Your task to perform on an android device: open app "HBO Max: Stream TV & Movies" (install if not already installed), go to login, and select forgot password Image 0: 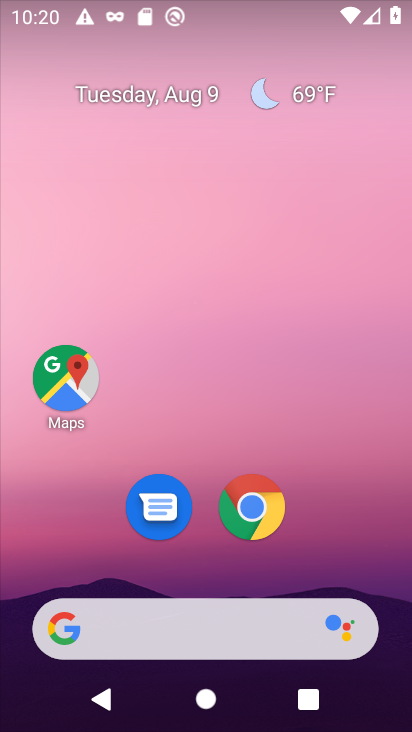
Step 0: drag from (167, 629) to (162, 262)
Your task to perform on an android device: open app "HBO Max: Stream TV & Movies" (install if not already installed), go to login, and select forgot password Image 1: 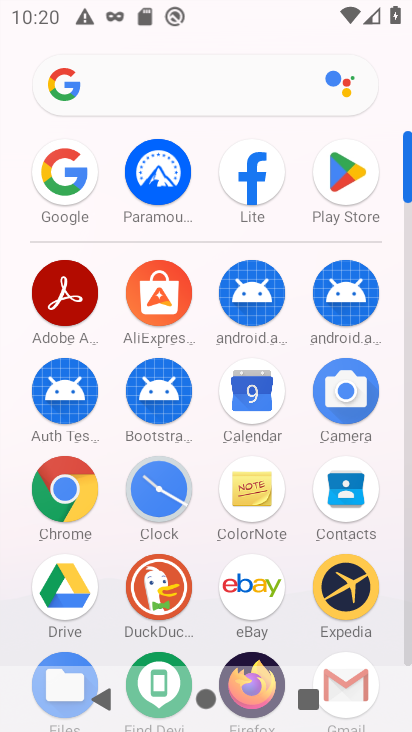
Step 1: click (346, 174)
Your task to perform on an android device: open app "HBO Max: Stream TV & Movies" (install if not already installed), go to login, and select forgot password Image 2: 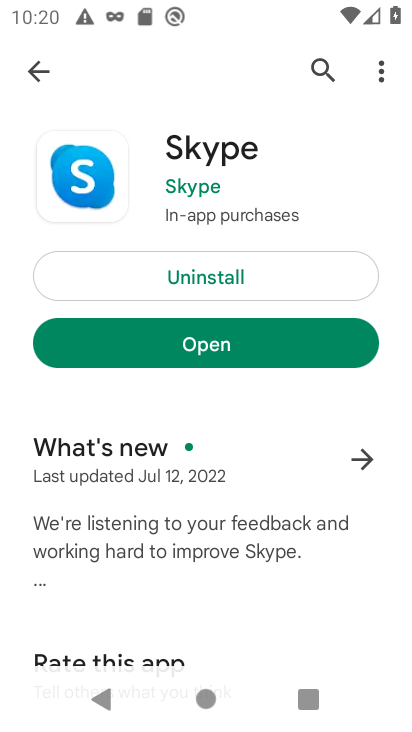
Step 2: click (322, 73)
Your task to perform on an android device: open app "HBO Max: Stream TV & Movies" (install if not already installed), go to login, and select forgot password Image 3: 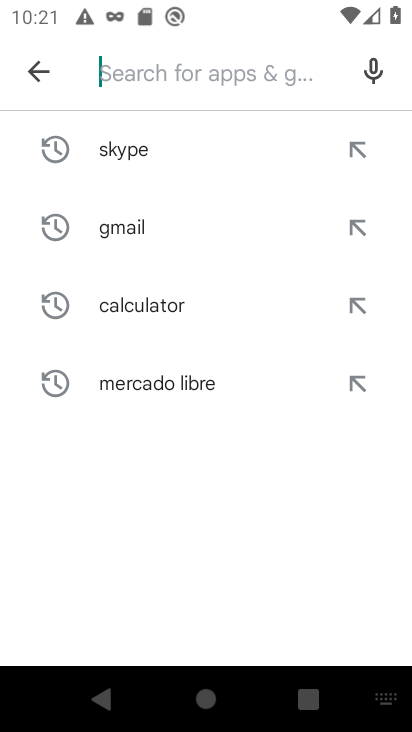
Step 3: type "HBO Max: Stream TV & Movies"
Your task to perform on an android device: open app "HBO Max: Stream TV & Movies" (install if not already installed), go to login, and select forgot password Image 4: 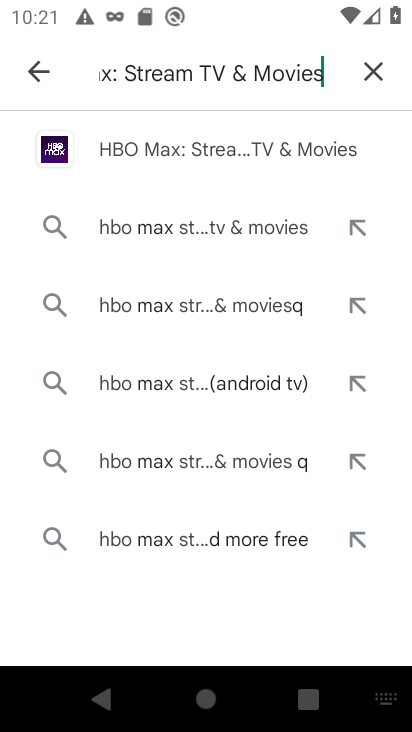
Step 4: click (170, 153)
Your task to perform on an android device: open app "HBO Max: Stream TV & Movies" (install if not already installed), go to login, and select forgot password Image 5: 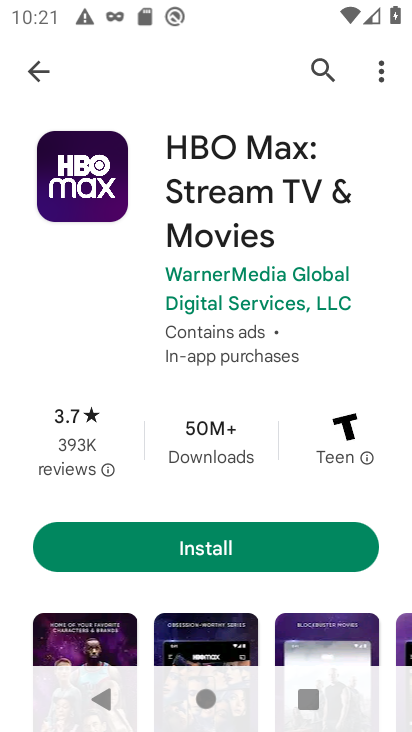
Step 5: click (224, 547)
Your task to perform on an android device: open app "HBO Max: Stream TV & Movies" (install if not already installed), go to login, and select forgot password Image 6: 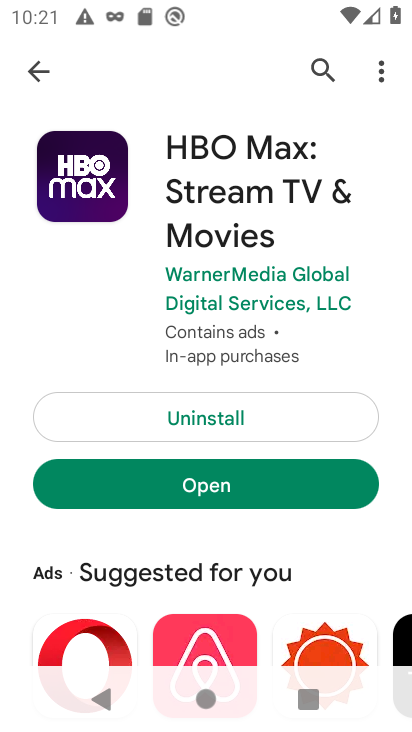
Step 6: click (219, 496)
Your task to perform on an android device: open app "HBO Max: Stream TV & Movies" (install if not already installed), go to login, and select forgot password Image 7: 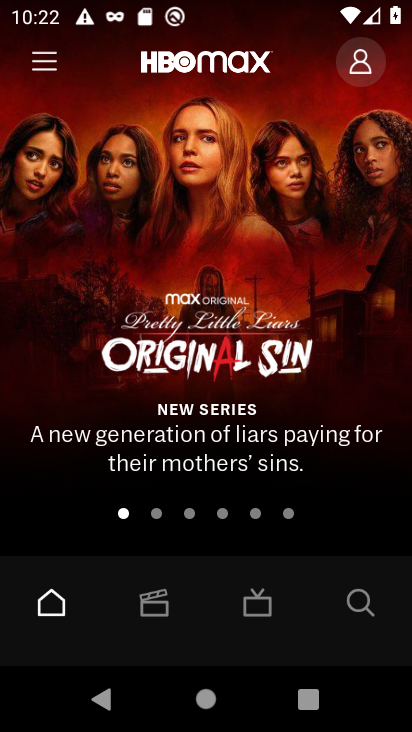
Step 7: click (355, 71)
Your task to perform on an android device: open app "HBO Max: Stream TV & Movies" (install if not already installed), go to login, and select forgot password Image 8: 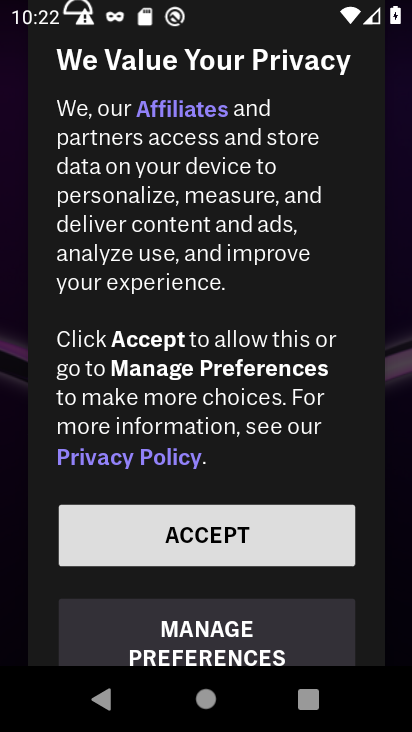
Step 8: drag from (242, 469) to (288, 246)
Your task to perform on an android device: open app "HBO Max: Stream TV & Movies" (install if not already installed), go to login, and select forgot password Image 9: 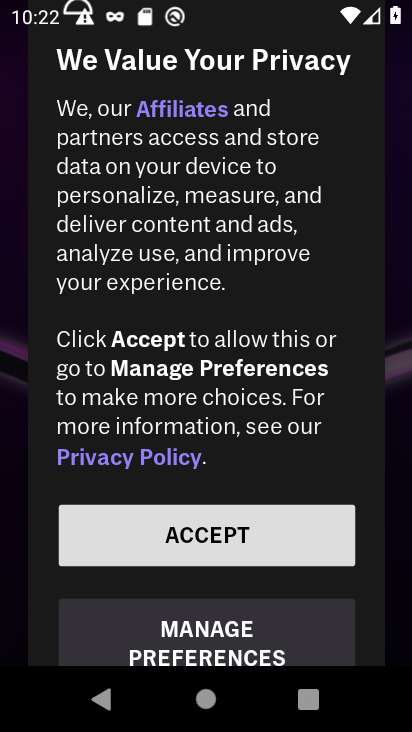
Step 9: drag from (235, 623) to (282, 386)
Your task to perform on an android device: open app "HBO Max: Stream TV & Movies" (install if not already installed), go to login, and select forgot password Image 10: 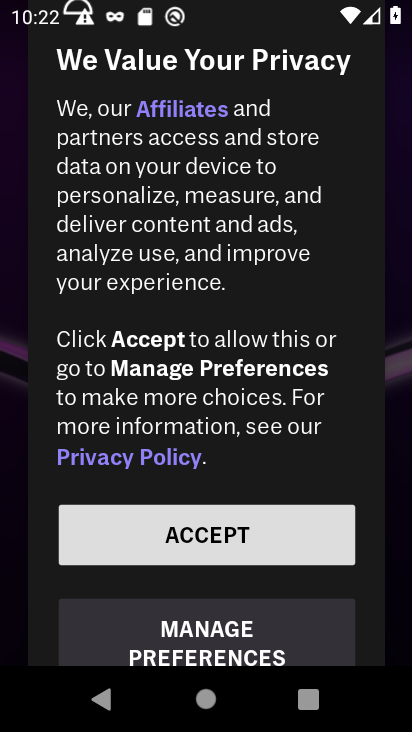
Step 10: click (213, 543)
Your task to perform on an android device: open app "HBO Max: Stream TV & Movies" (install if not already installed), go to login, and select forgot password Image 11: 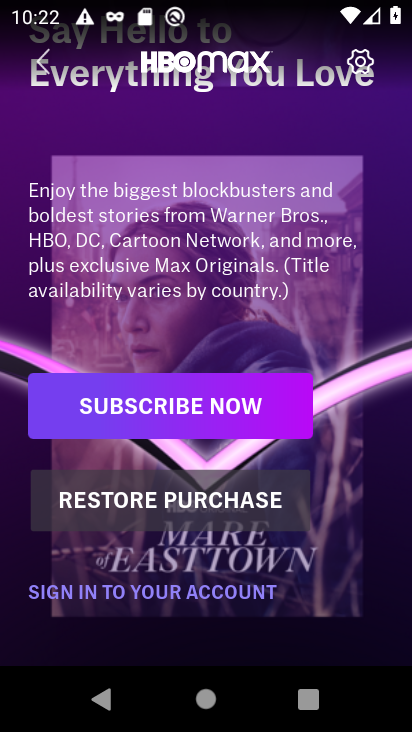
Step 11: drag from (213, 547) to (287, 408)
Your task to perform on an android device: open app "HBO Max: Stream TV & Movies" (install if not already installed), go to login, and select forgot password Image 12: 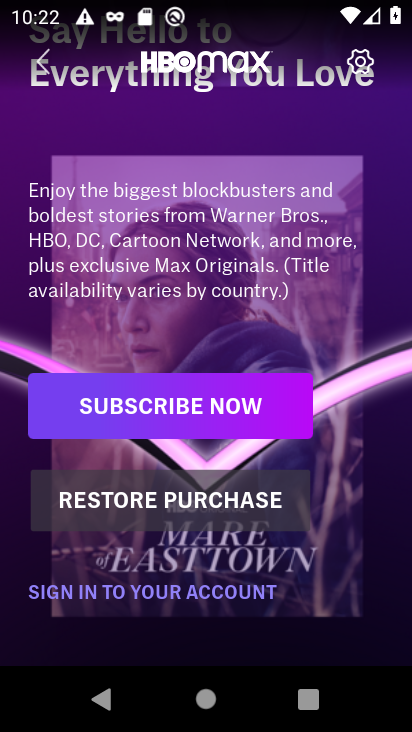
Step 12: click (196, 592)
Your task to perform on an android device: open app "HBO Max: Stream TV & Movies" (install if not already installed), go to login, and select forgot password Image 13: 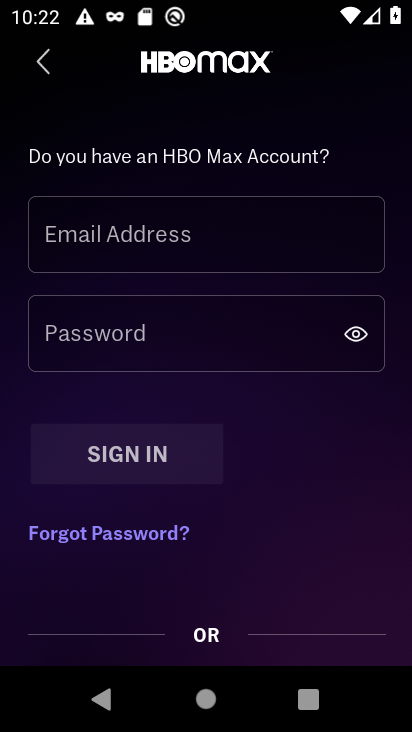
Step 13: click (176, 543)
Your task to perform on an android device: open app "HBO Max: Stream TV & Movies" (install if not already installed), go to login, and select forgot password Image 14: 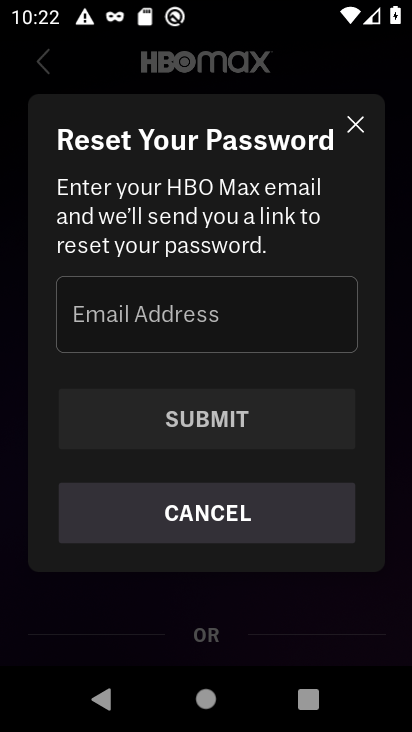
Step 14: task complete